Your task to perform on an android device: Open the map Image 0: 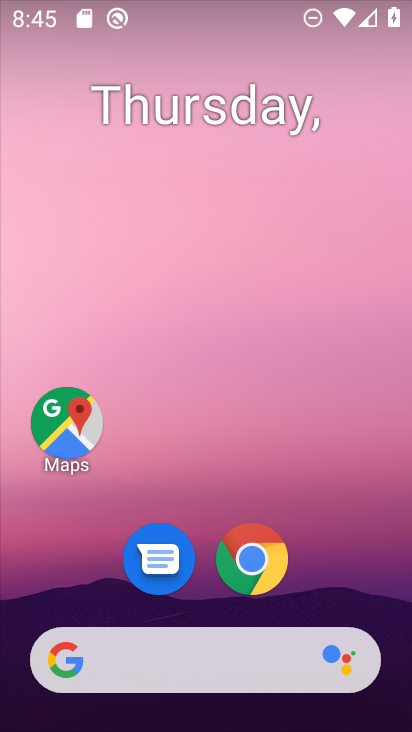
Step 0: click (100, 459)
Your task to perform on an android device: Open the map Image 1: 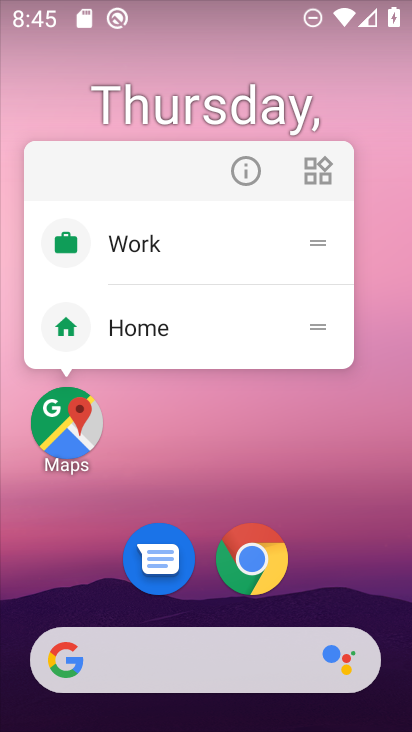
Step 1: click (90, 442)
Your task to perform on an android device: Open the map Image 2: 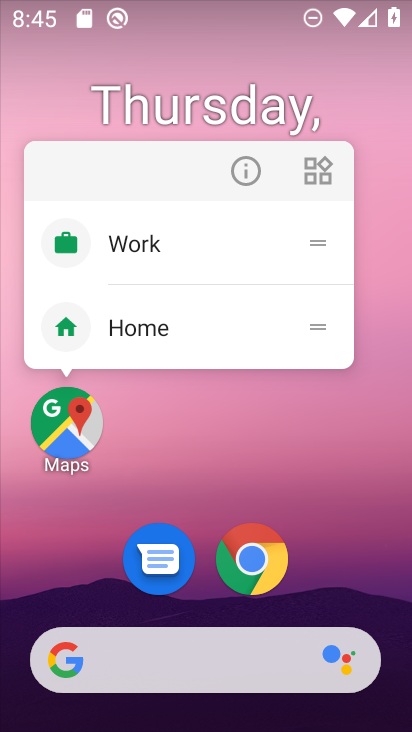
Step 2: click (87, 434)
Your task to perform on an android device: Open the map Image 3: 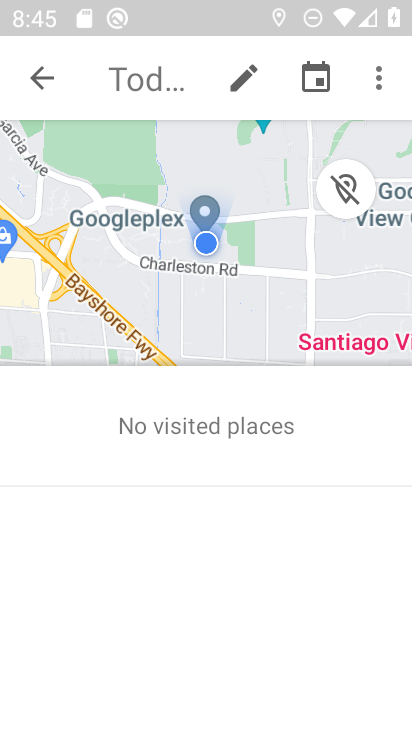
Step 3: task complete